Your task to perform on an android device: turn on notifications settings in the gmail app Image 0: 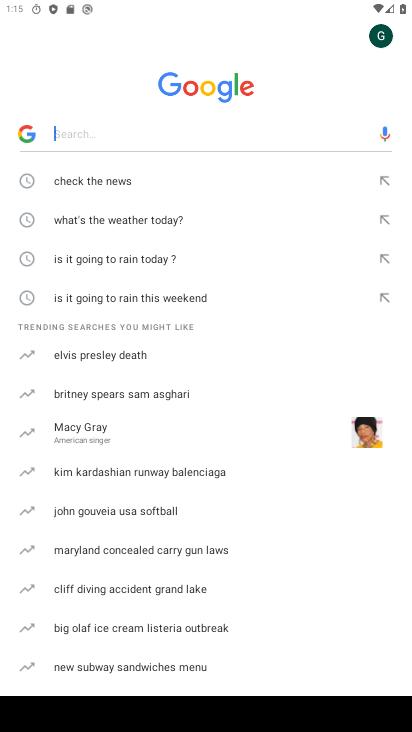
Step 0: press home button
Your task to perform on an android device: turn on notifications settings in the gmail app Image 1: 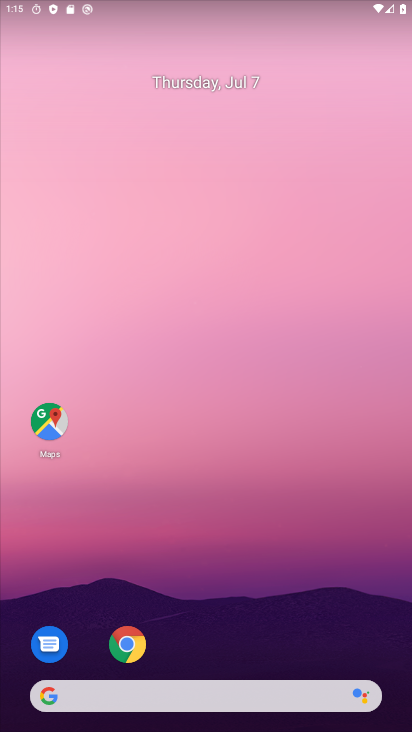
Step 1: press home button
Your task to perform on an android device: turn on notifications settings in the gmail app Image 2: 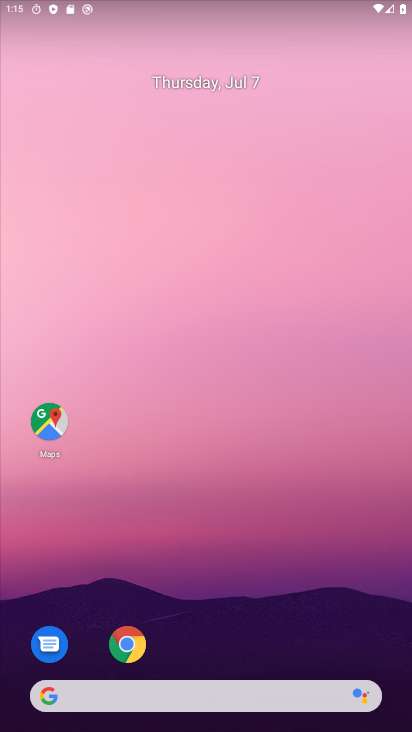
Step 2: drag from (221, 704) to (218, 127)
Your task to perform on an android device: turn on notifications settings in the gmail app Image 3: 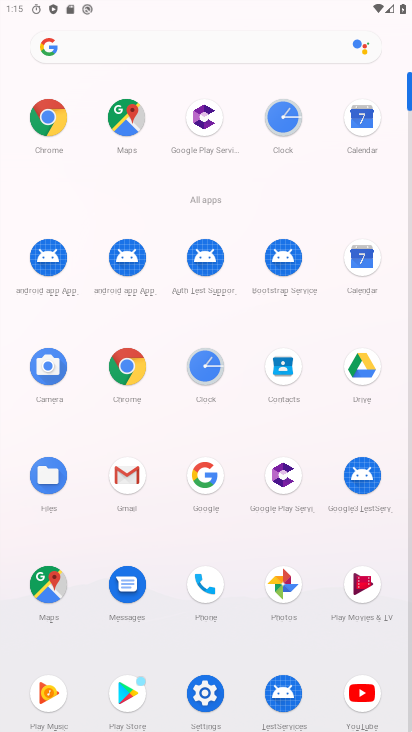
Step 3: click (129, 473)
Your task to perform on an android device: turn on notifications settings in the gmail app Image 4: 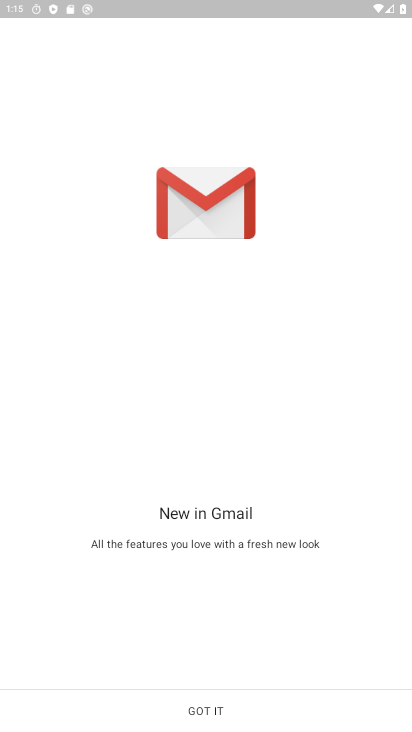
Step 4: click (211, 712)
Your task to perform on an android device: turn on notifications settings in the gmail app Image 5: 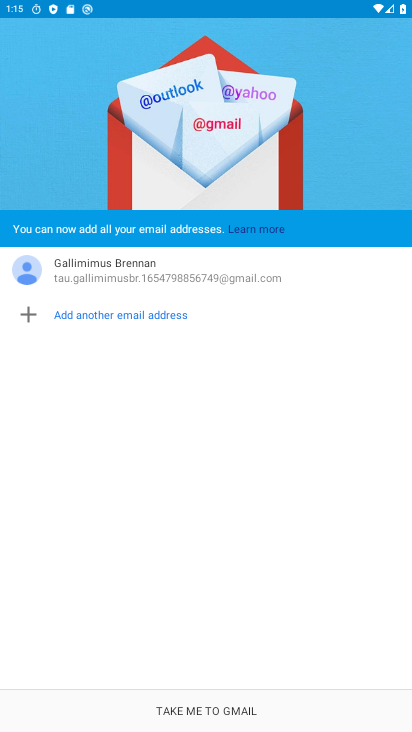
Step 5: click (196, 704)
Your task to perform on an android device: turn on notifications settings in the gmail app Image 6: 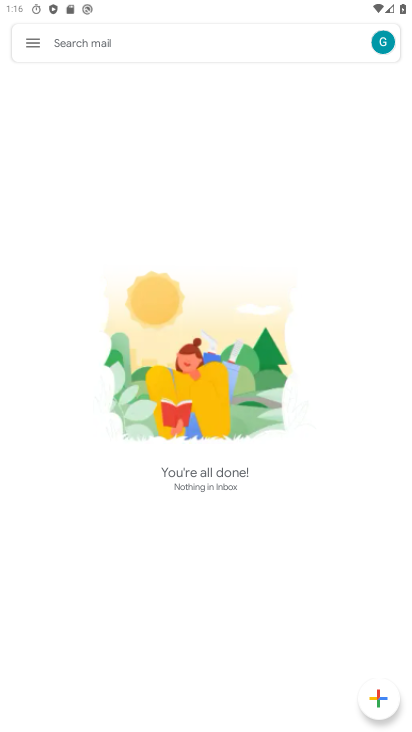
Step 6: click (34, 42)
Your task to perform on an android device: turn on notifications settings in the gmail app Image 7: 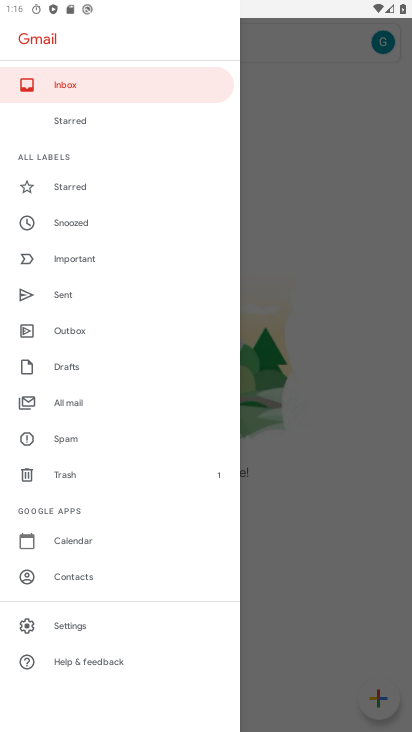
Step 7: click (70, 623)
Your task to perform on an android device: turn on notifications settings in the gmail app Image 8: 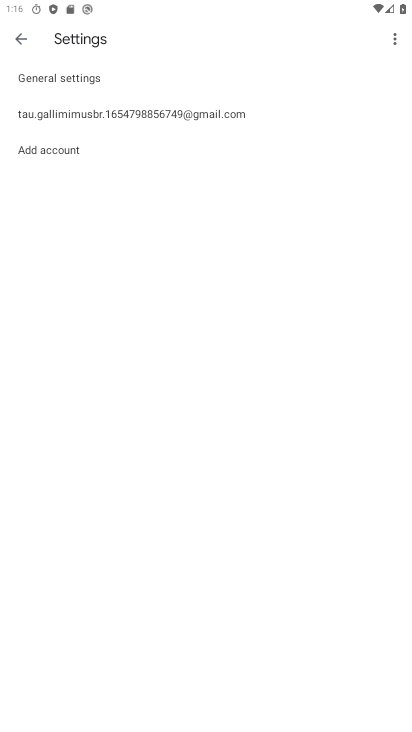
Step 8: click (162, 107)
Your task to perform on an android device: turn on notifications settings in the gmail app Image 9: 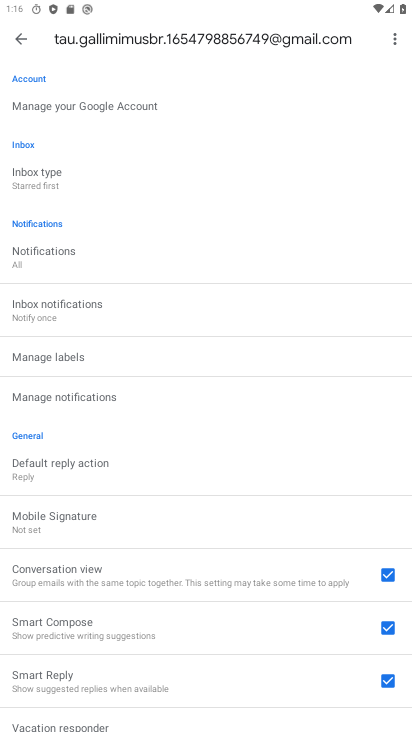
Step 9: click (44, 256)
Your task to perform on an android device: turn on notifications settings in the gmail app Image 10: 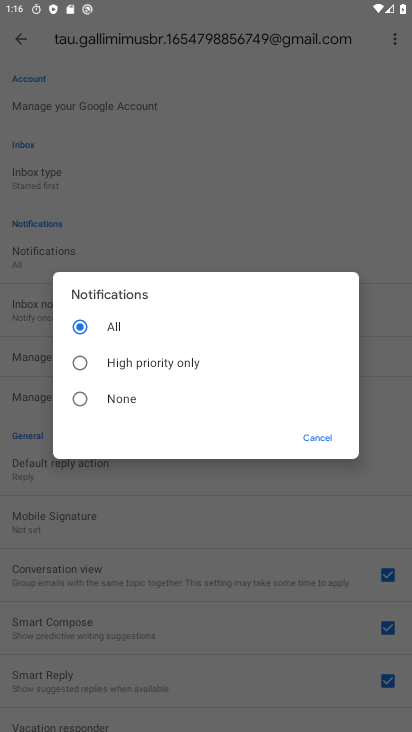
Step 10: click (318, 439)
Your task to perform on an android device: turn on notifications settings in the gmail app Image 11: 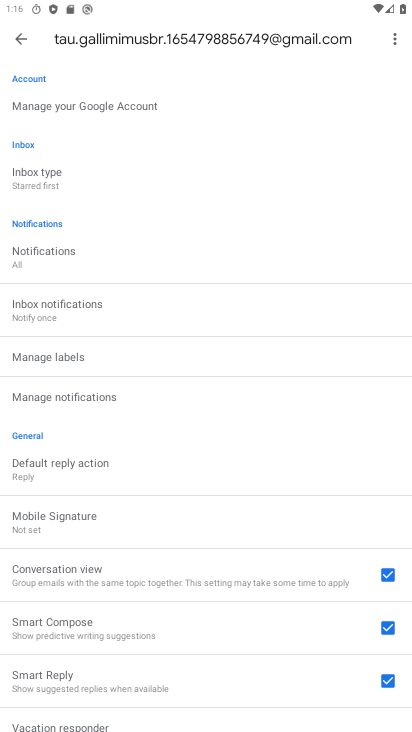
Step 11: task complete